Your task to perform on an android device: toggle javascript in the chrome app Image 0: 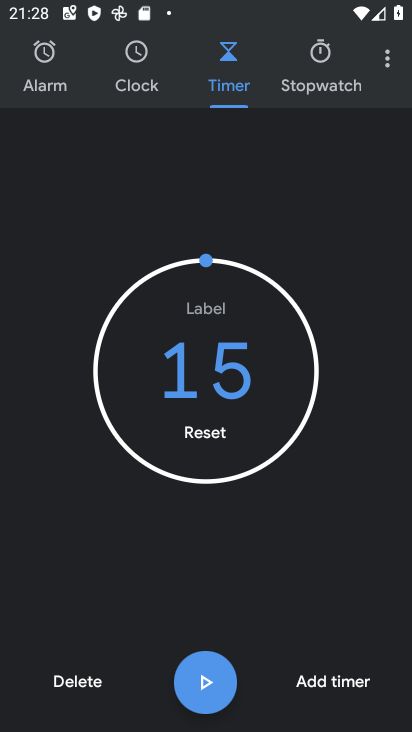
Step 0: press home button
Your task to perform on an android device: toggle javascript in the chrome app Image 1: 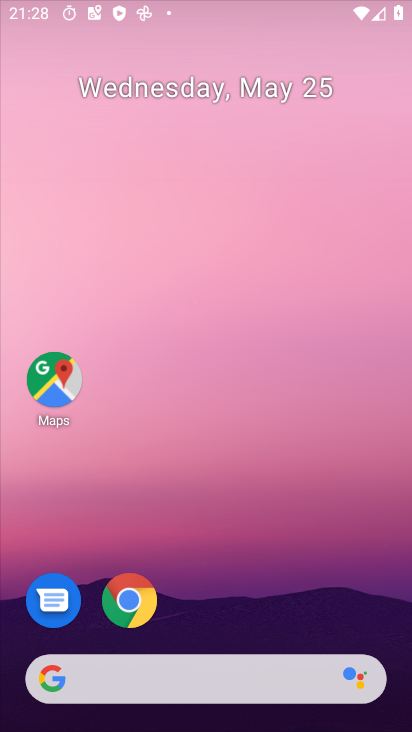
Step 1: drag from (331, 587) to (308, 242)
Your task to perform on an android device: toggle javascript in the chrome app Image 2: 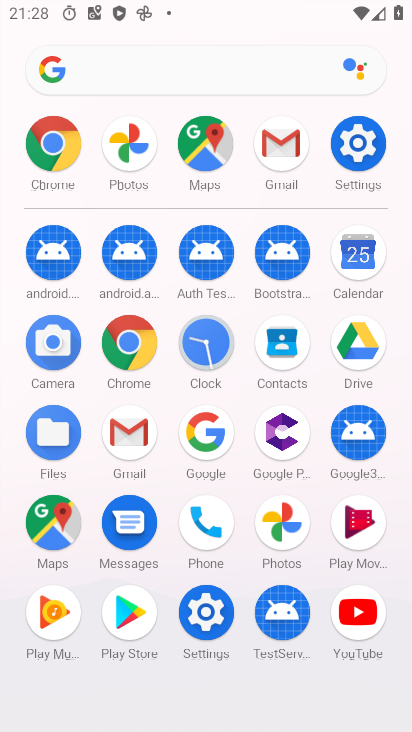
Step 2: click (138, 346)
Your task to perform on an android device: toggle javascript in the chrome app Image 3: 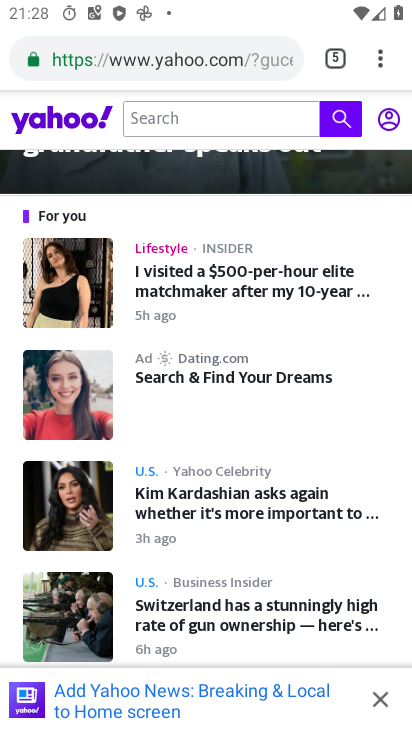
Step 3: drag from (389, 70) to (255, 624)
Your task to perform on an android device: toggle javascript in the chrome app Image 4: 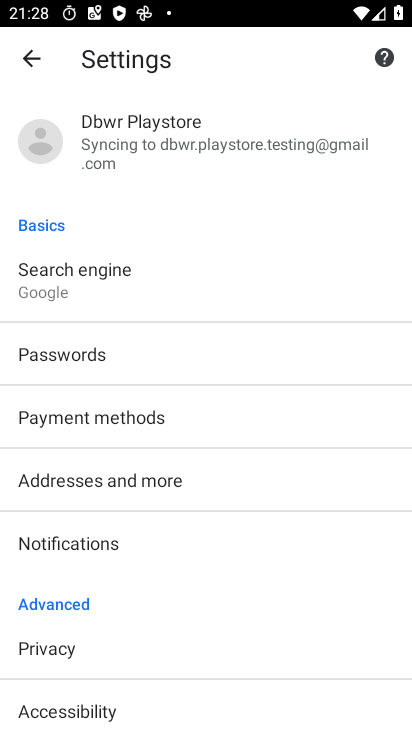
Step 4: drag from (212, 576) to (245, 335)
Your task to perform on an android device: toggle javascript in the chrome app Image 5: 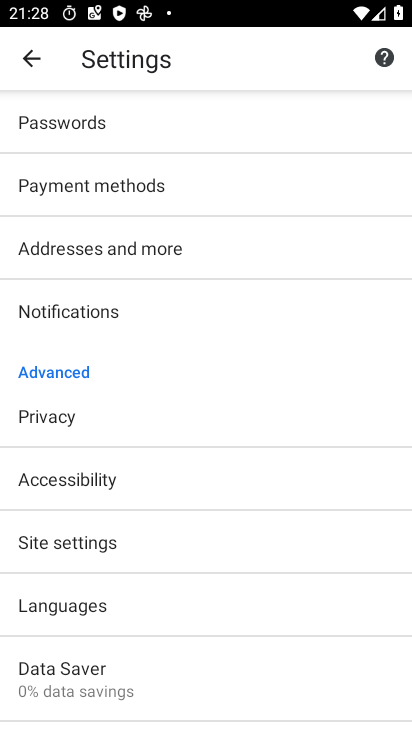
Step 5: click (144, 543)
Your task to perform on an android device: toggle javascript in the chrome app Image 6: 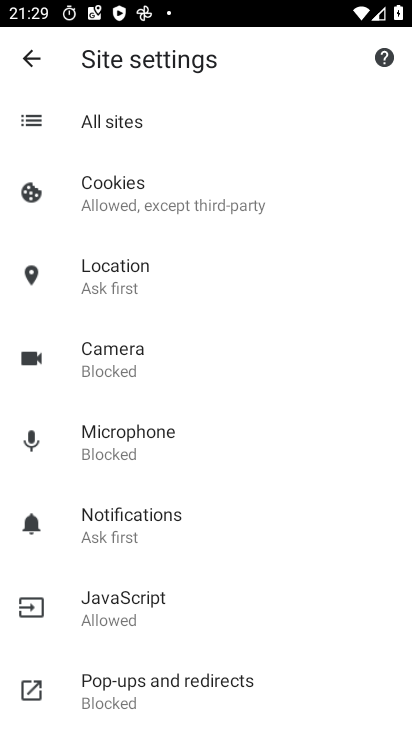
Step 6: click (157, 597)
Your task to perform on an android device: toggle javascript in the chrome app Image 7: 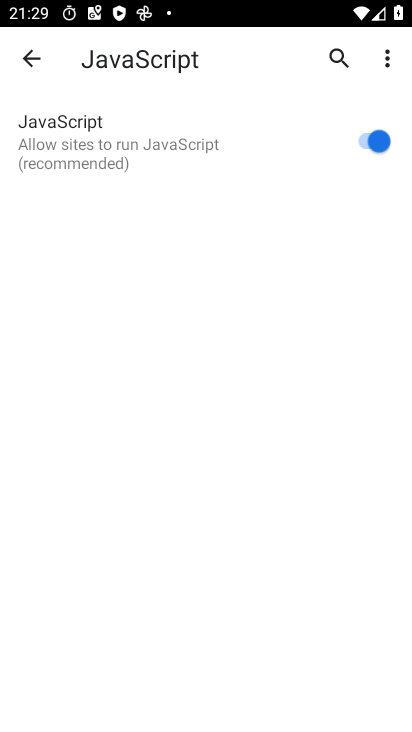
Step 7: click (370, 143)
Your task to perform on an android device: toggle javascript in the chrome app Image 8: 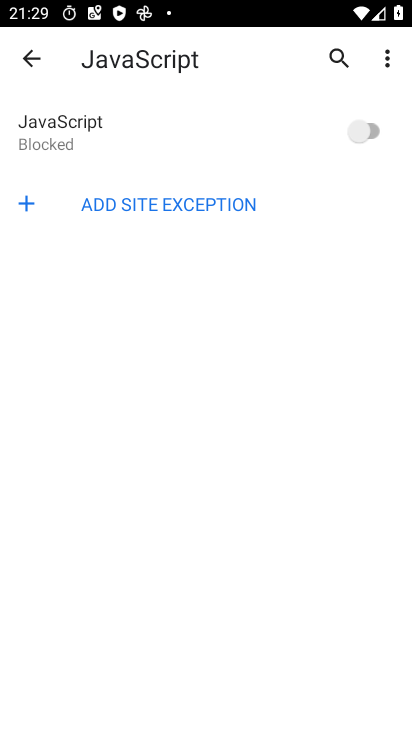
Step 8: task complete